Your task to perform on an android device: Search for seafood restaurants on Google Maps Image 0: 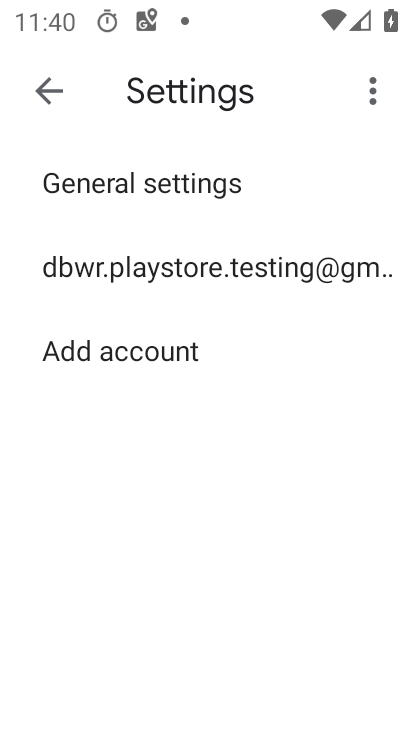
Step 0: press home button
Your task to perform on an android device: Search for seafood restaurants on Google Maps Image 1: 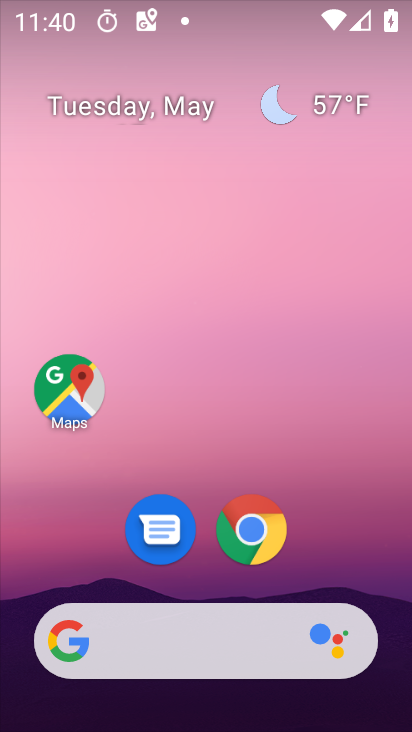
Step 1: click (55, 381)
Your task to perform on an android device: Search for seafood restaurants on Google Maps Image 2: 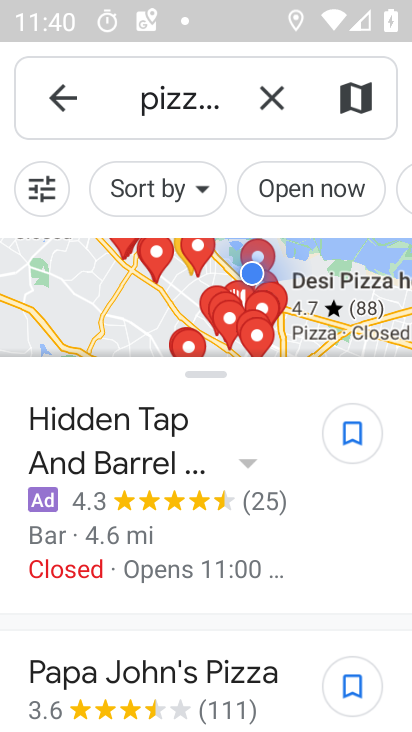
Step 2: click (266, 108)
Your task to perform on an android device: Search for seafood restaurants on Google Maps Image 3: 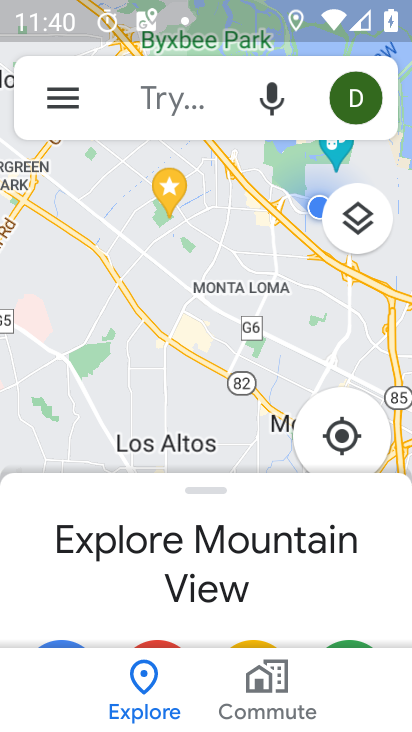
Step 3: click (161, 92)
Your task to perform on an android device: Search for seafood restaurants on Google Maps Image 4: 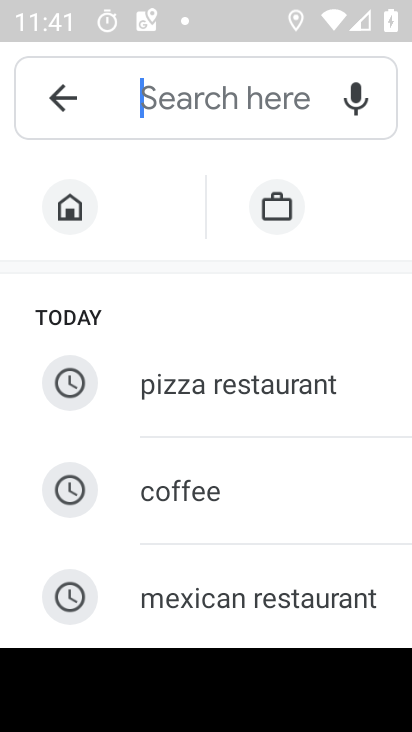
Step 4: type "seafoodf"
Your task to perform on an android device: Search for seafood restaurants on Google Maps Image 5: 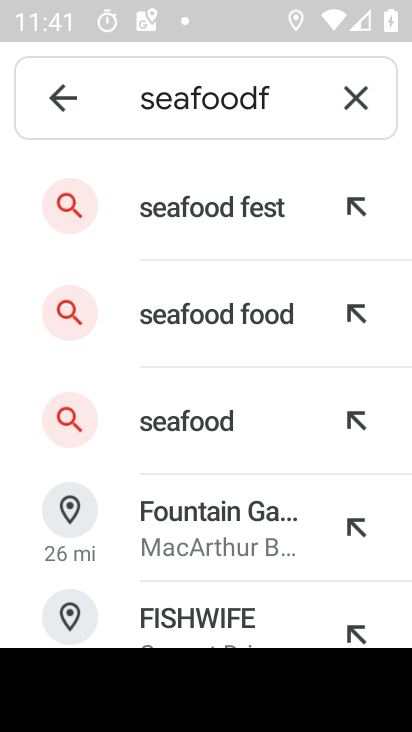
Step 5: click (194, 290)
Your task to perform on an android device: Search for seafood restaurants on Google Maps Image 6: 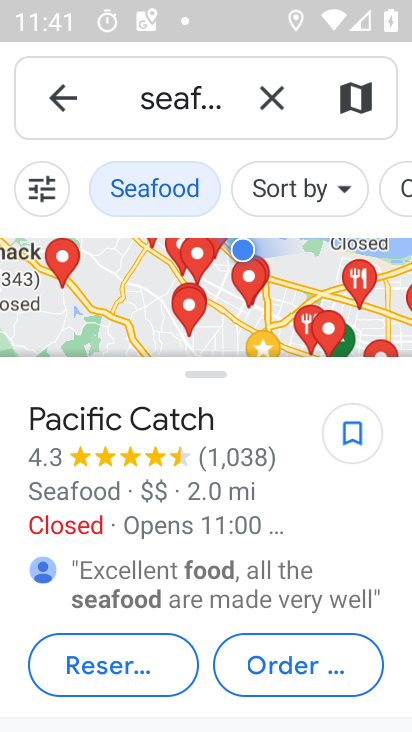
Step 6: task complete